Your task to perform on an android device: check data usage Image 0: 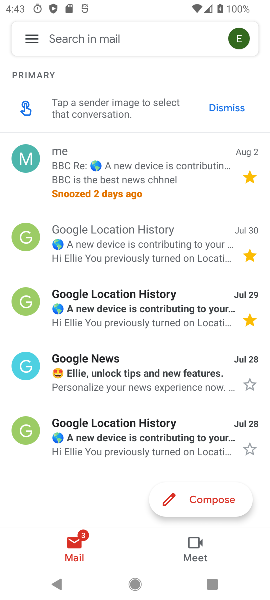
Step 0: press back button
Your task to perform on an android device: check data usage Image 1: 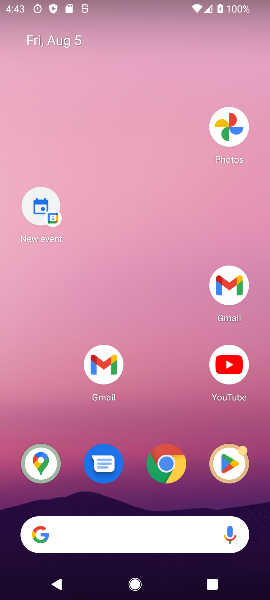
Step 1: click (176, 63)
Your task to perform on an android device: check data usage Image 2: 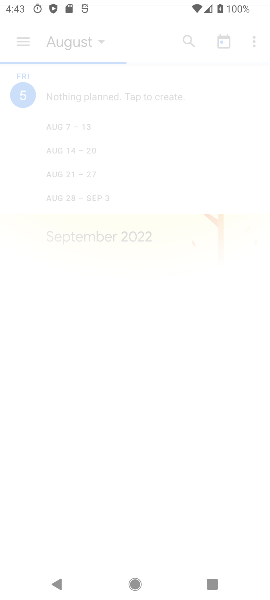
Step 2: drag from (181, 416) to (132, 143)
Your task to perform on an android device: check data usage Image 3: 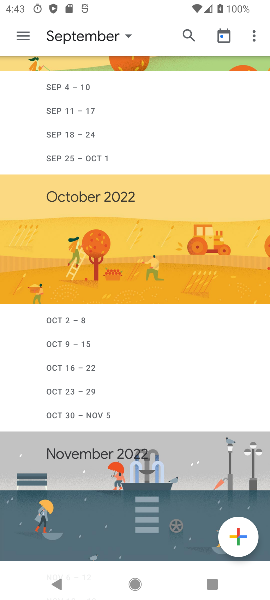
Step 3: press back button
Your task to perform on an android device: check data usage Image 4: 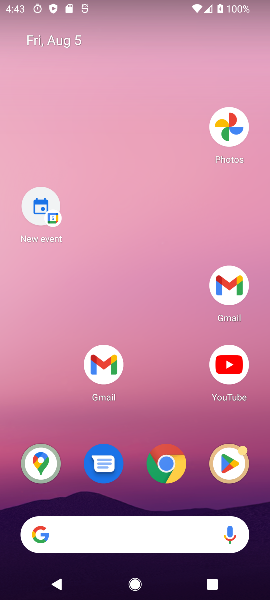
Step 4: drag from (143, 540) to (120, 200)
Your task to perform on an android device: check data usage Image 5: 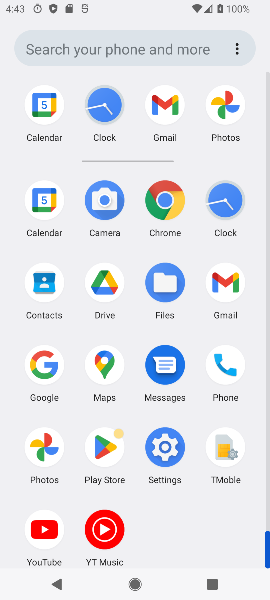
Step 5: drag from (186, 538) to (170, 261)
Your task to perform on an android device: check data usage Image 6: 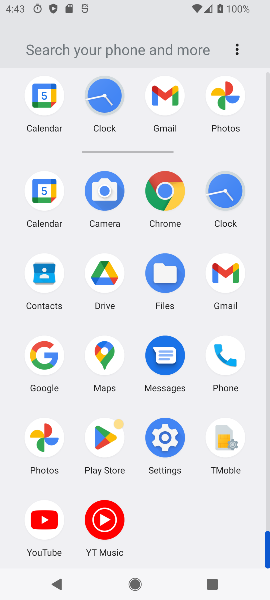
Step 6: click (166, 448)
Your task to perform on an android device: check data usage Image 7: 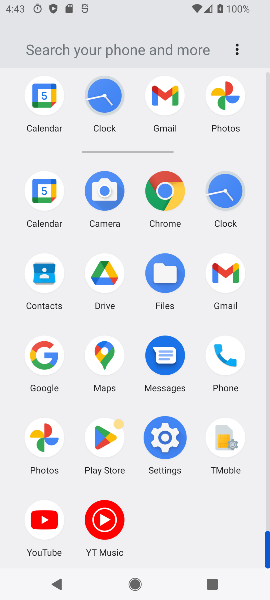
Step 7: click (166, 448)
Your task to perform on an android device: check data usage Image 8: 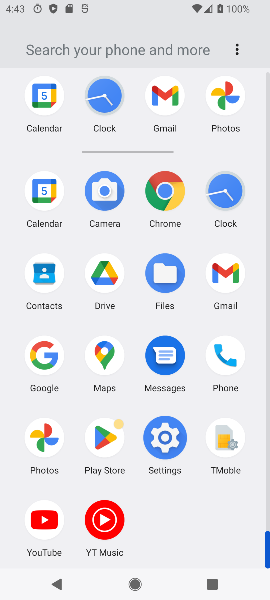
Step 8: click (165, 447)
Your task to perform on an android device: check data usage Image 9: 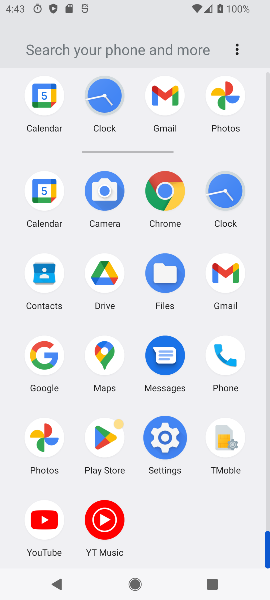
Step 9: click (165, 447)
Your task to perform on an android device: check data usage Image 10: 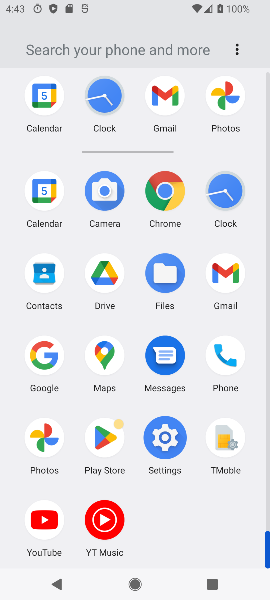
Step 10: click (165, 447)
Your task to perform on an android device: check data usage Image 11: 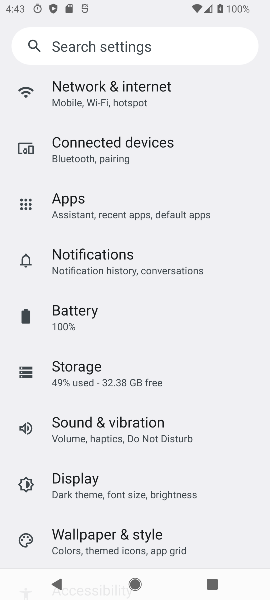
Step 11: click (165, 447)
Your task to perform on an android device: check data usage Image 12: 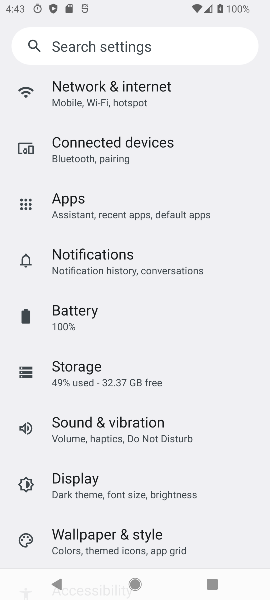
Step 12: click (99, 98)
Your task to perform on an android device: check data usage Image 13: 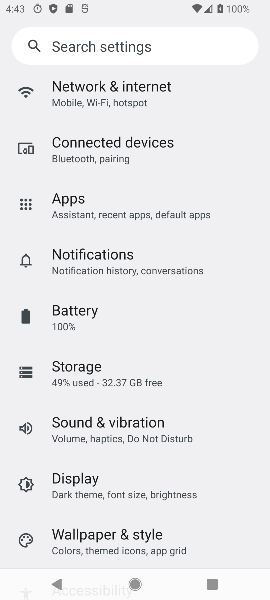
Step 13: click (105, 94)
Your task to perform on an android device: check data usage Image 14: 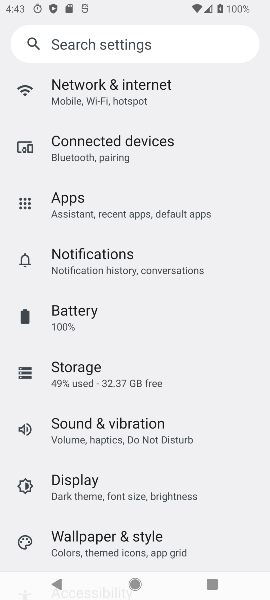
Step 14: click (105, 94)
Your task to perform on an android device: check data usage Image 15: 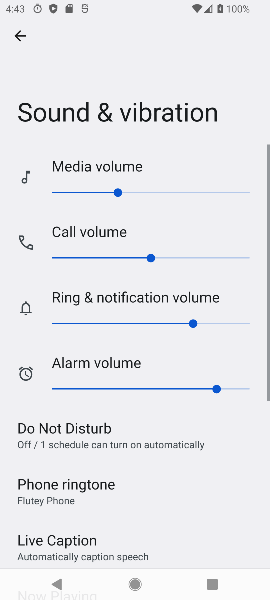
Step 15: click (106, 94)
Your task to perform on an android device: check data usage Image 16: 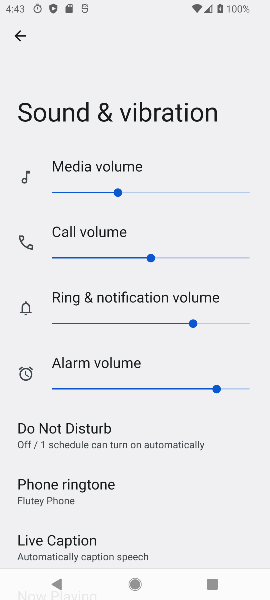
Step 16: click (21, 34)
Your task to perform on an android device: check data usage Image 17: 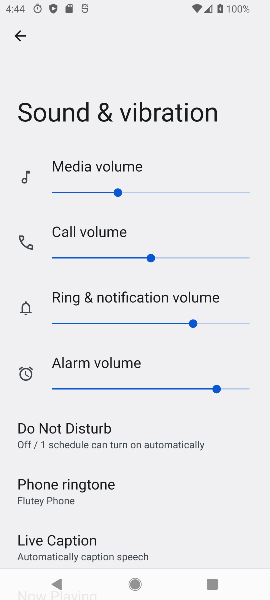
Step 17: click (21, 27)
Your task to perform on an android device: check data usage Image 18: 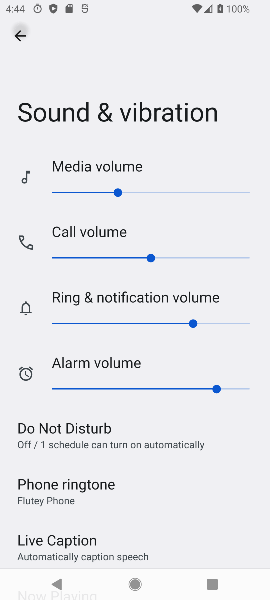
Step 18: click (21, 27)
Your task to perform on an android device: check data usage Image 19: 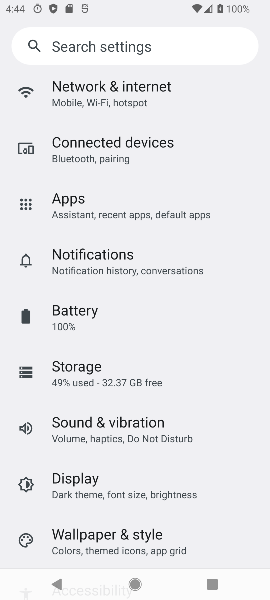
Step 19: click (88, 89)
Your task to perform on an android device: check data usage Image 20: 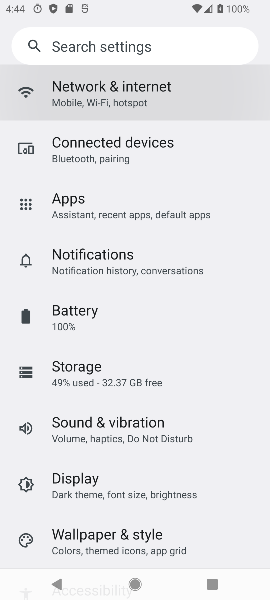
Step 20: click (93, 93)
Your task to perform on an android device: check data usage Image 21: 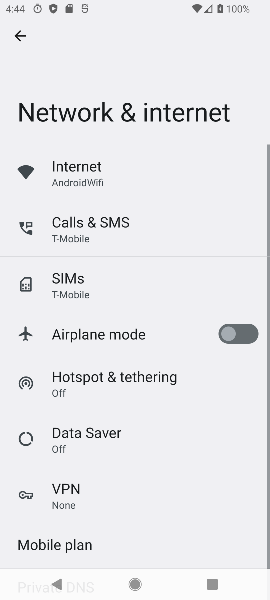
Step 21: click (94, 94)
Your task to perform on an android device: check data usage Image 22: 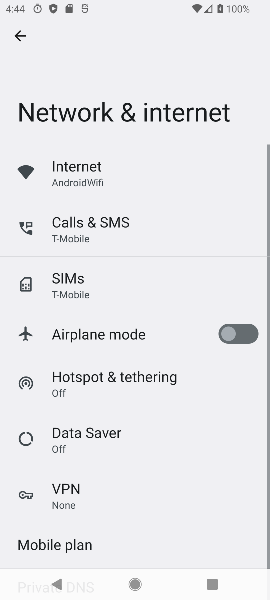
Step 22: click (94, 94)
Your task to perform on an android device: check data usage Image 23: 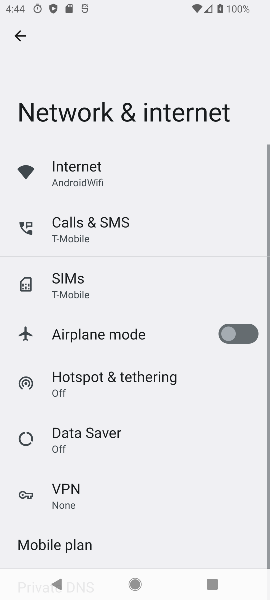
Step 23: click (96, 95)
Your task to perform on an android device: check data usage Image 24: 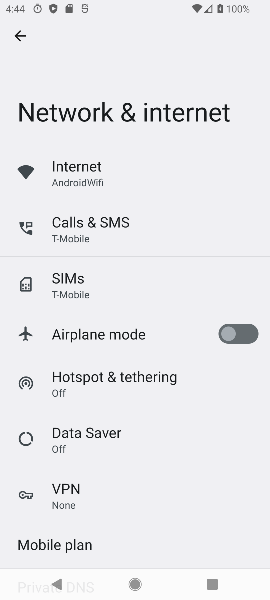
Step 24: click (75, 170)
Your task to perform on an android device: check data usage Image 25: 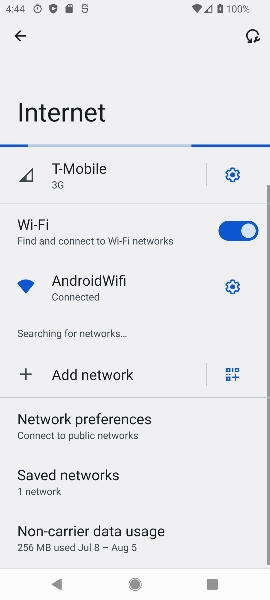
Step 25: task complete